Your task to perform on an android device: Do I have any events today? Image 0: 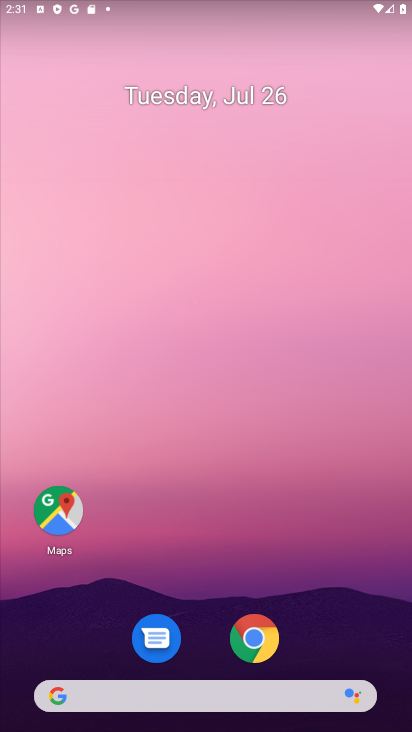
Step 0: drag from (219, 730) to (188, 35)
Your task to perform on an android device: Do I have any events today? Image 1: 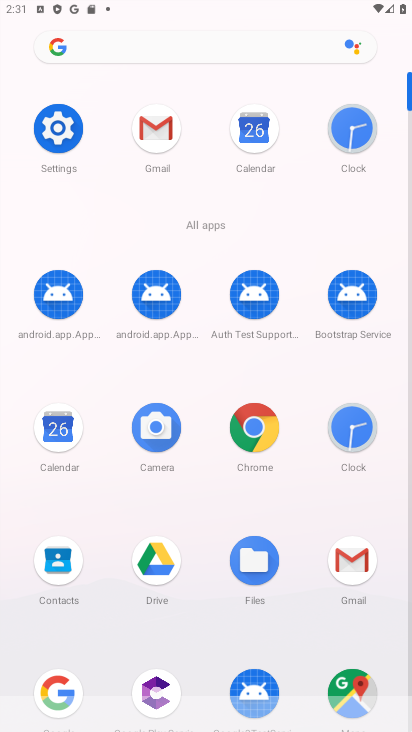
Step 1: click (258, 139)
Your task to perform on an android device: Do I have any events today? Image 2: 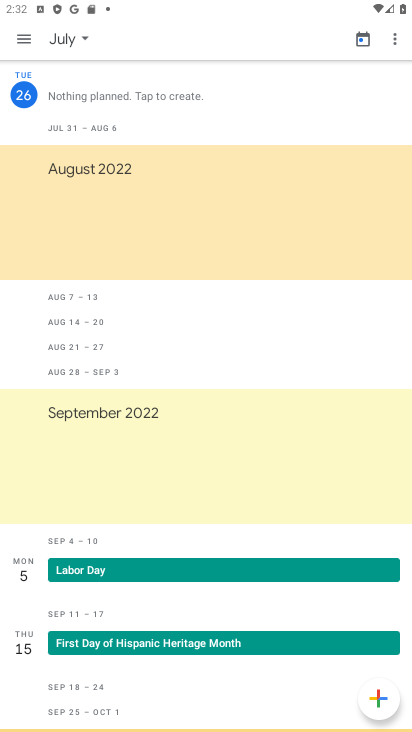
Step 2: click (66, 36)
Your task to perform on an android device: Do I have any events today? Image 3: 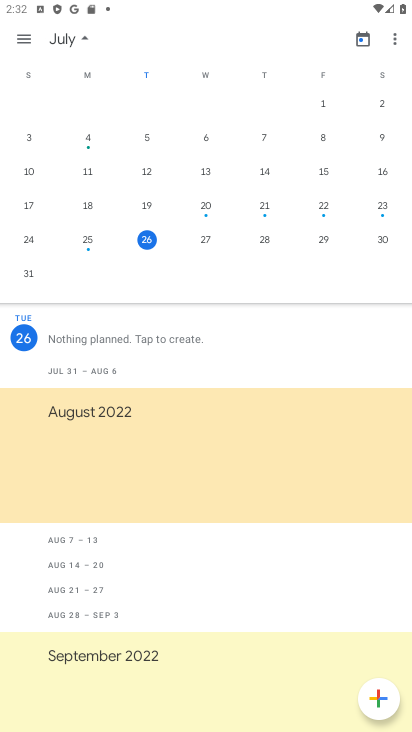
Step 3: click (244, 354)
Your task to perform on an android device: Do I have any events today? Image 4: 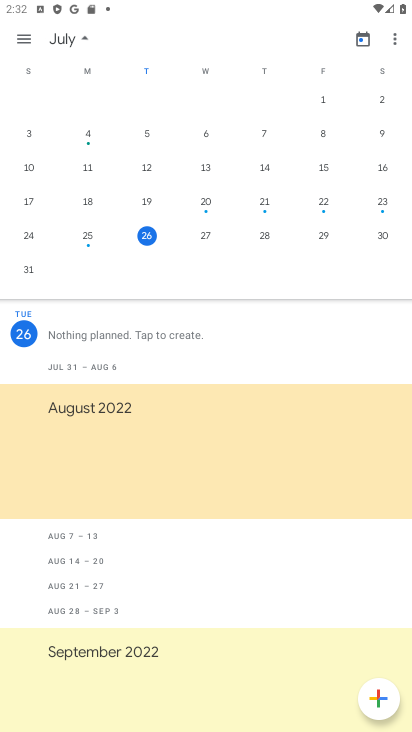
Step 4: task complete